Your task to perform on an android device: turn off javascript in the chrome app Image 0: 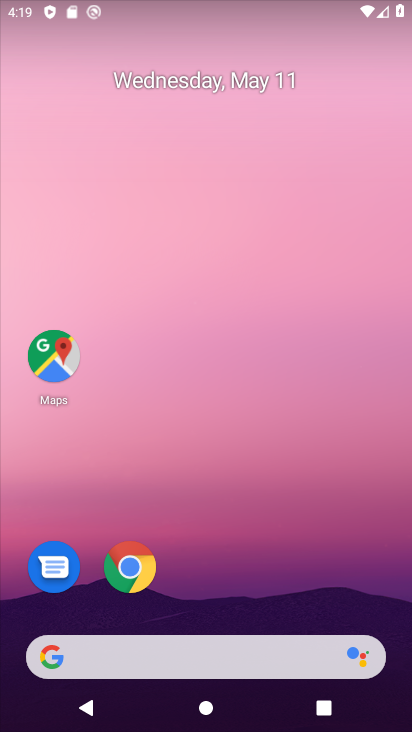
Step 0: click (140, 567)
Your task to perform on an android device: turn off javascript in the chrome app Image 1: 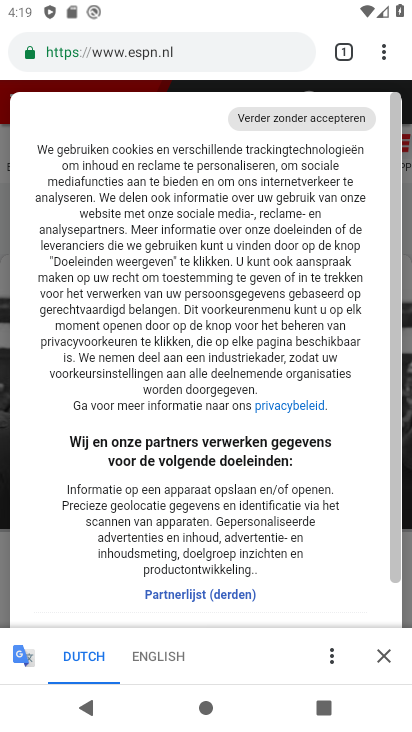
Step 1: click (381, 61)
Your task to perform on an android device: turn off javascript in the chrome app Image 2: 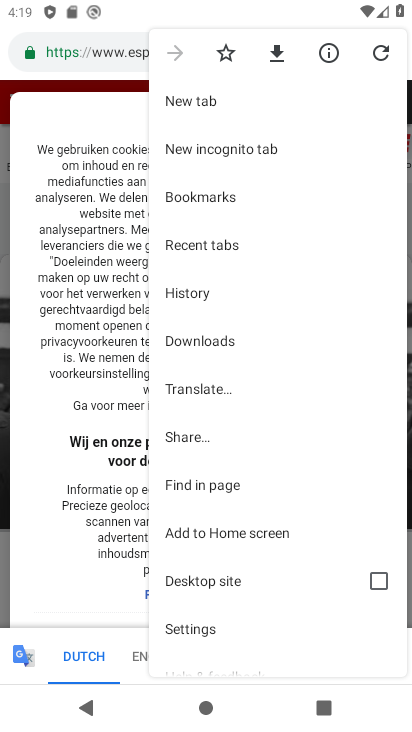
Step 2: click (233, 628)
Your task to perform on an android device: turn off javascript in the chrome app Image 3: 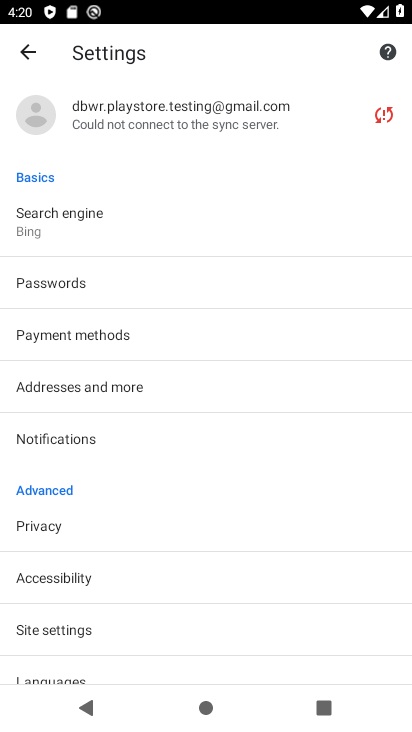
Step 3: click (98, 625)
Your task to perform on an android device: turn off javascript in the chrome app Image 4: 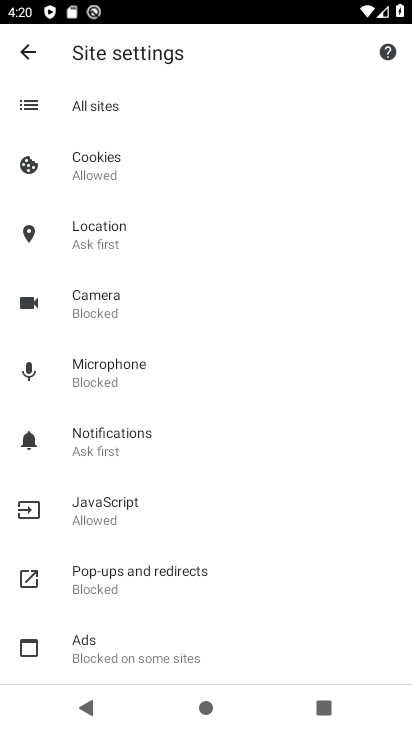
Step 4: click (114, 525)
Your task to perform on an android device: turn off javascript in the chrome app Image 5: 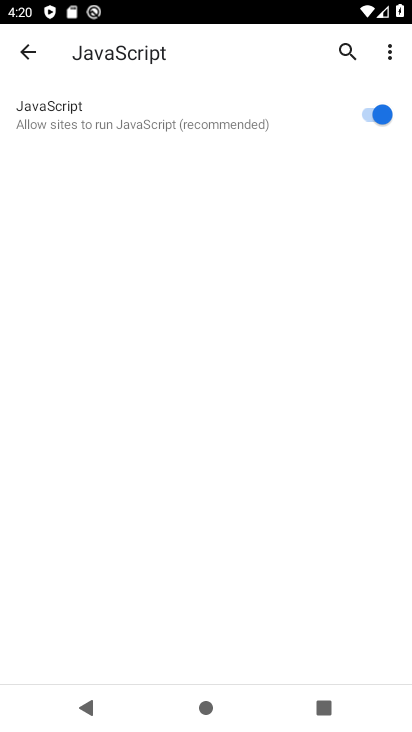
Step 5: click (364, 122)
Your task to perform on an android device: turn off javascript in the chrome app Image 6: 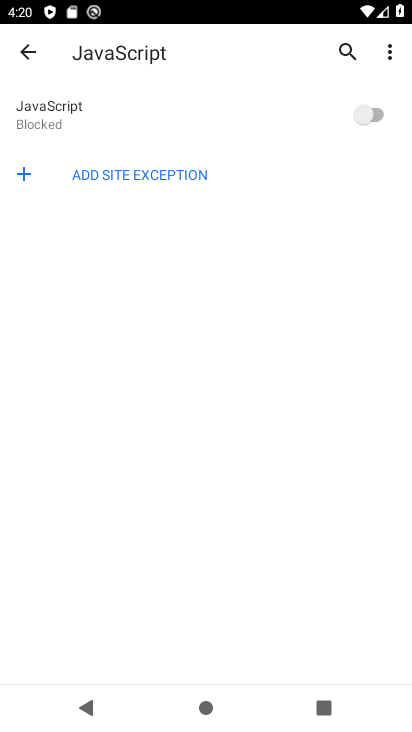
Step 6: task complete